Your task to perform on an android device: Open Maps and search for coffee Image 0: 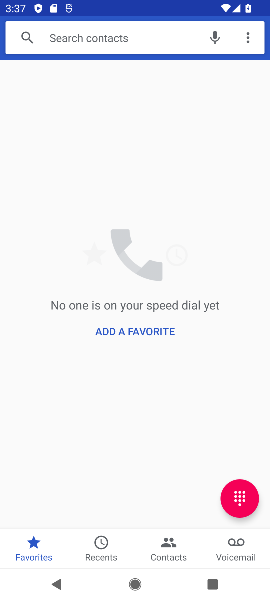
Step 0: press home button
Your task to perform on an android device: Open Maps and search for coffee Image 1: 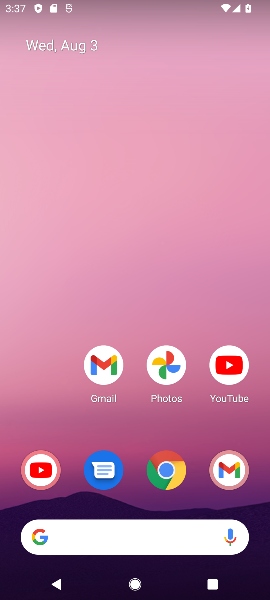
Step 1: drag from (188, 402) to (188, 92)
Your task to perform on an android device: Open Maps and search for coffee Image 2: 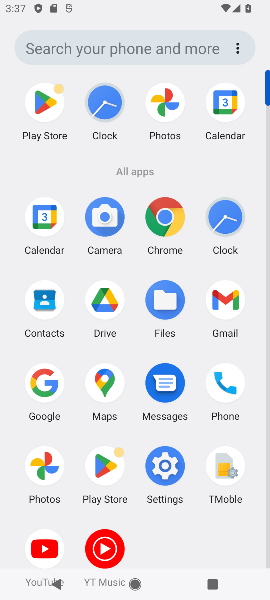
Step 2: click (109, 391)
Your task to perform on an android device: Open Maps and search for coffee Image 3: 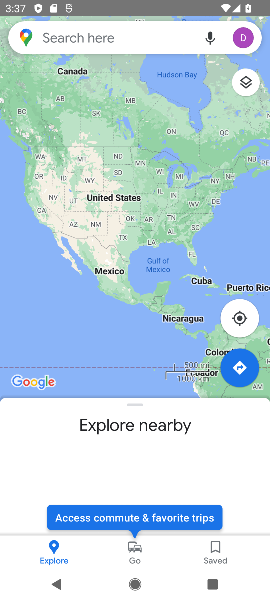
Step 3: click (89, 43)
Your task to perform on an android device: Open Maps and search for coffee Image 4: 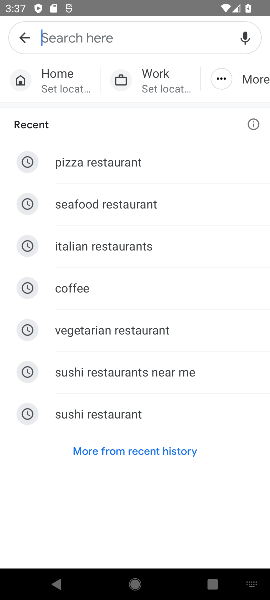
Step 4: click (77, 297)
Your task to perform on an android device: Open Maps and search for coffee Image 5: 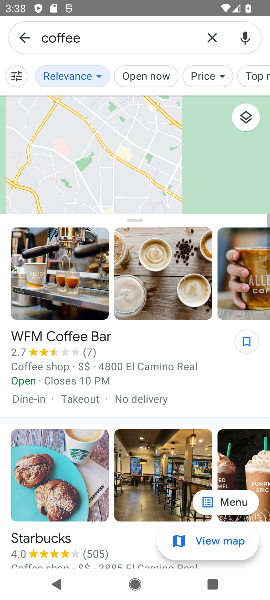
Step 5: task complete